Your task to perform on an android device: Go to Google Image 0: 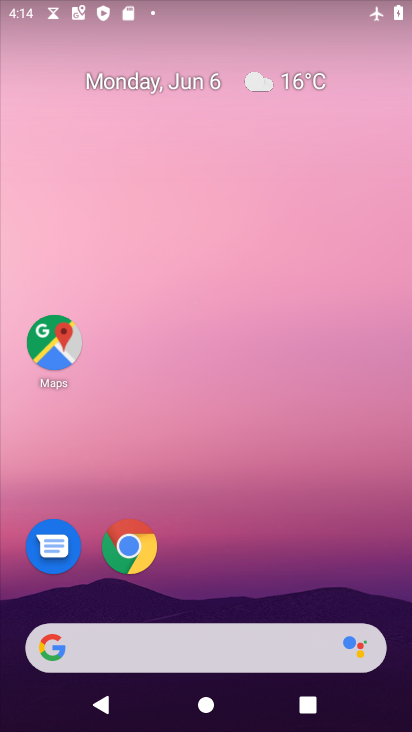
Step 0: drag from (293, 551) to (227, 0)
Your task to perform on an android device: Go to Google Image 1: 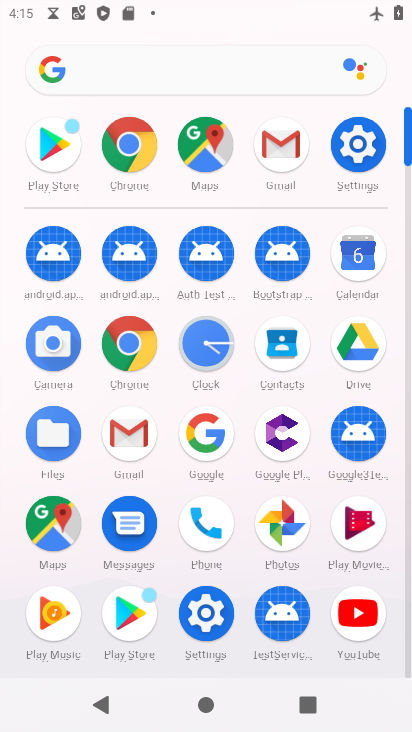
Step 1: click (222, 436)
Your task to perform on an android device: Go to Google Image 2: 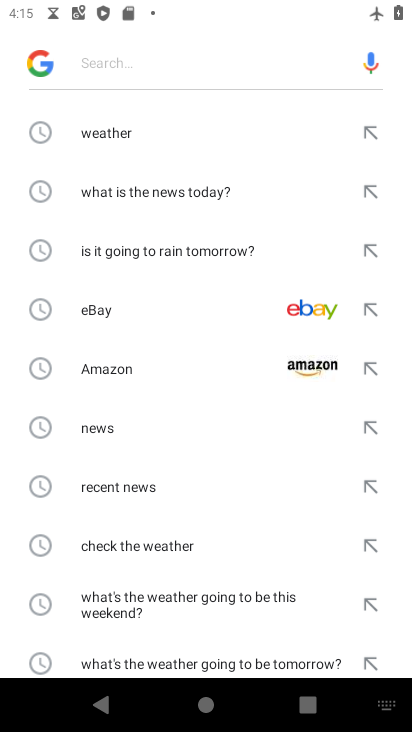
Step 2: task complete